Your task to perform on an android device: Search for vegetarian restaurants on Maps Image 0: 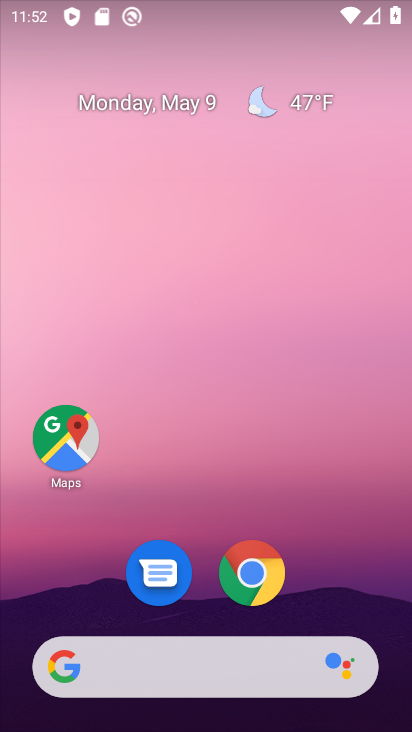
Step 0: drag from (181, 600) to (196, 206)
Your task to perform on an android device: Search for vegetarian restaurants on Maps Image 1: 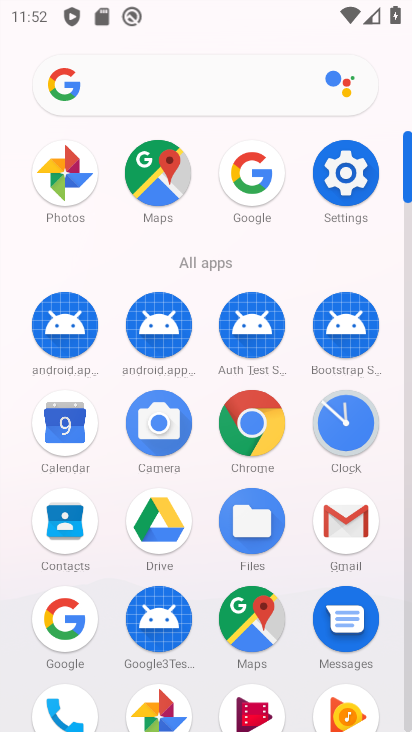
Step 1: click (261, 601)
Your task to perform on an android device: Search for vegetarian restaurants on Maps Image 2: 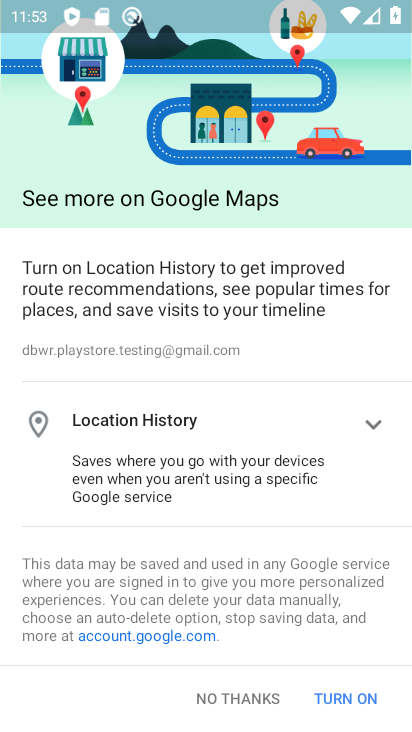
Step 2: click (249, 692)
Your task to perform on an android device: Search for vegetarian restaurants on Maps Image 3: 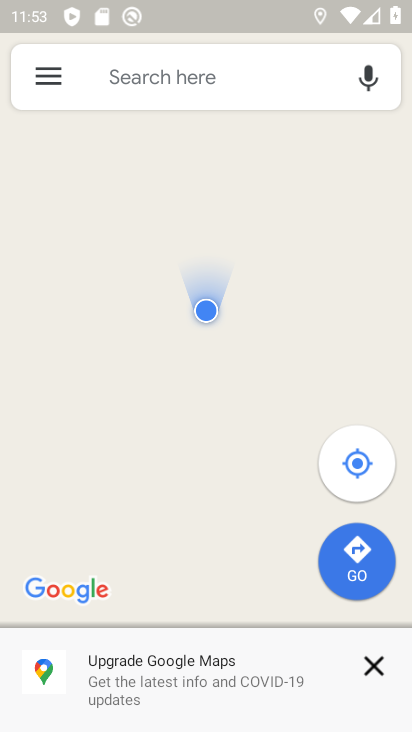
Step 3: click (158, 78)
Your task to perform on an android device: Search for vegetarian restaurants on Maps Image 4: 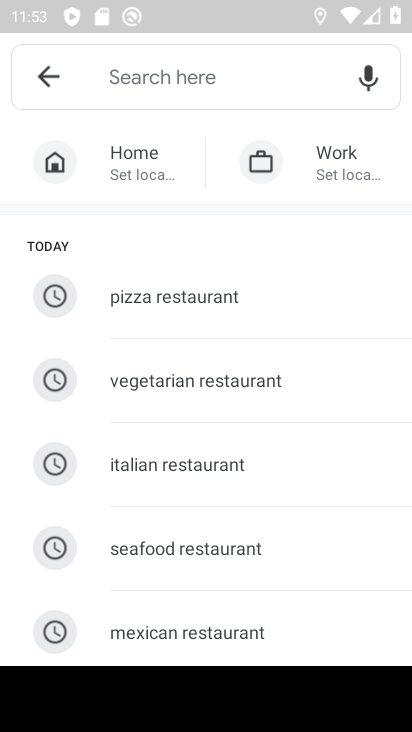
Step 4: click (231, 362)
Your task to perform on an android device: Search for vegetarian restaurants on Maps Image 5: 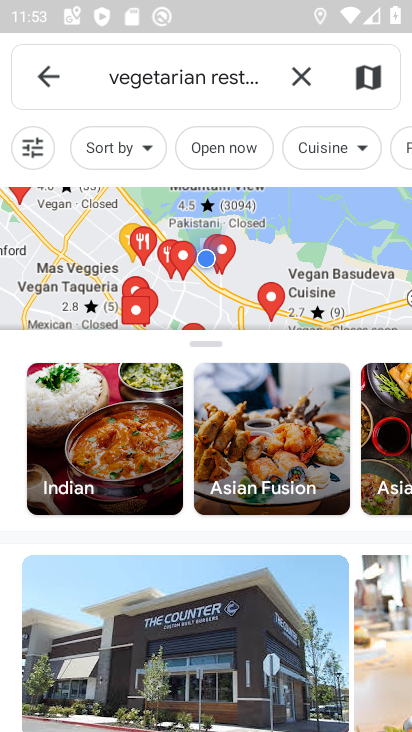
Step 5: task complete